Your task to perform on an android device: Go to battery settings Image 0: 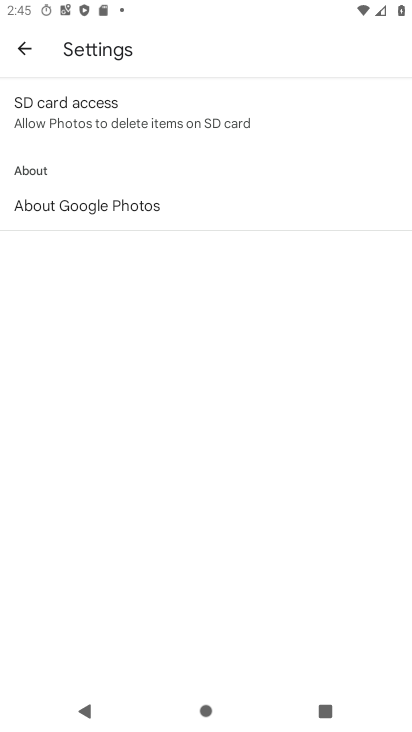
Step 0: press home button
Your task to perform on an android device: Go to battery settings Image 1: 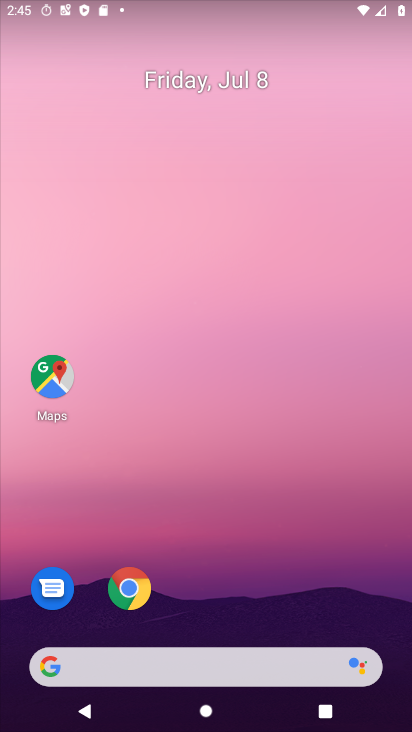
Step 1: drag from (269, 633) to (216, 263)
Your task to perform on an android device: Go to battery settings Image 2: 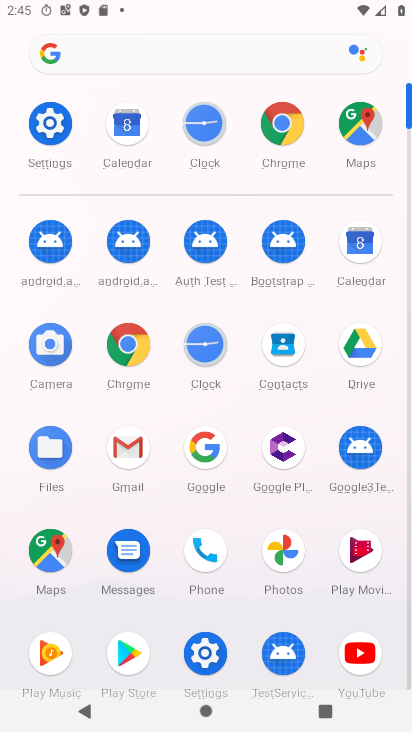
Step 2: click (64, 123)
Your task to perform on an android device: Go to battery settings Image 3: 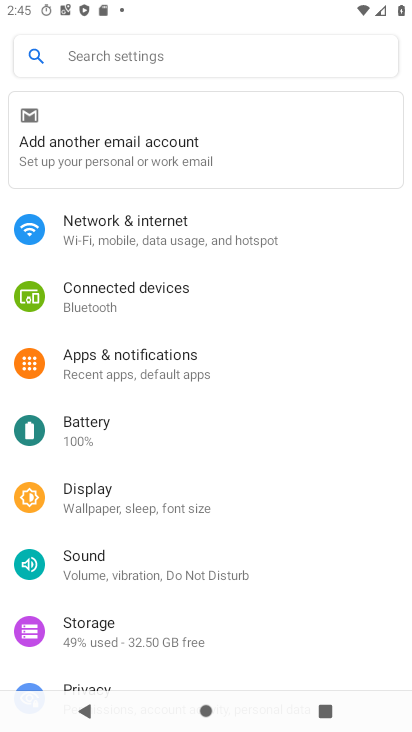
Step 3: click (74, 433)
Your task to perform on an android device: Go to battery settings Image 4: 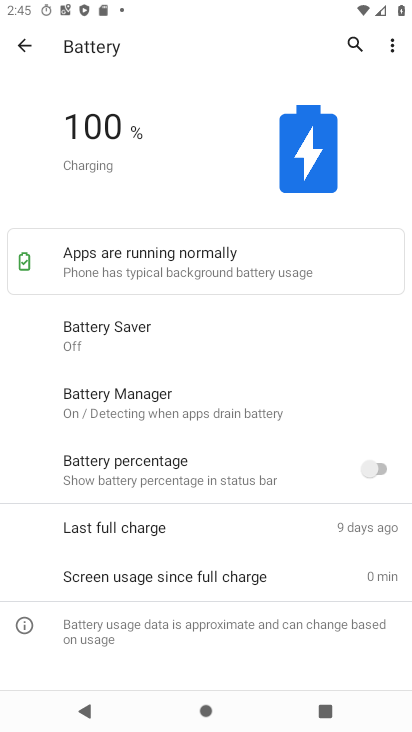
Step 4: task complete